Your task to perform on an android device: turn on the 12-hour format for clock Image 0: 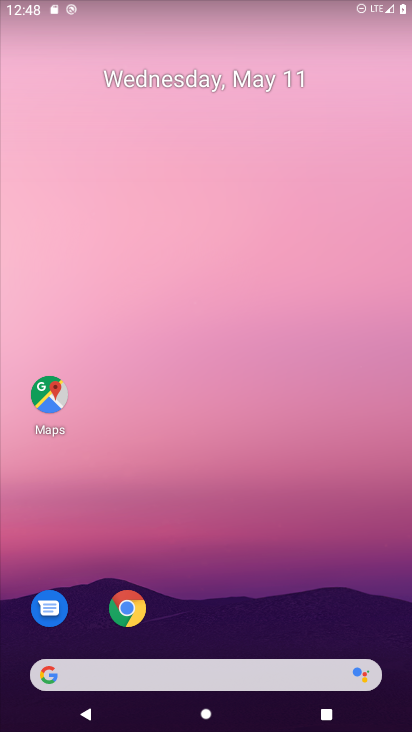
Step 0: drag from (229, 541) to (237, 78)
Your task to perform on an android device: turn on the 12-hour format for clock Image 1: 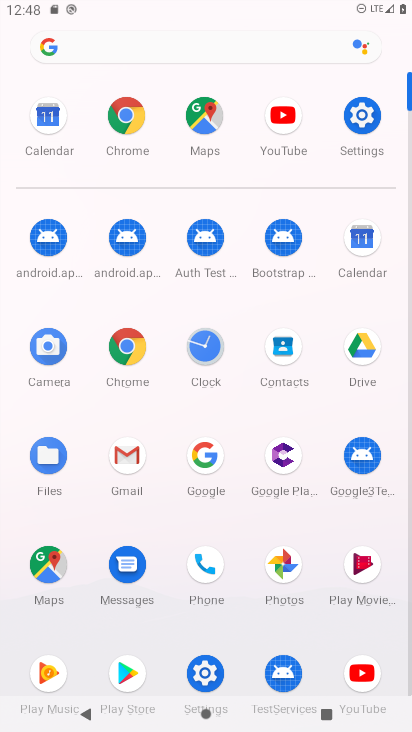
Step 1: click (208, 343)
Your task to perform on an android device: turn on the 12-hour format for clock Image 2: 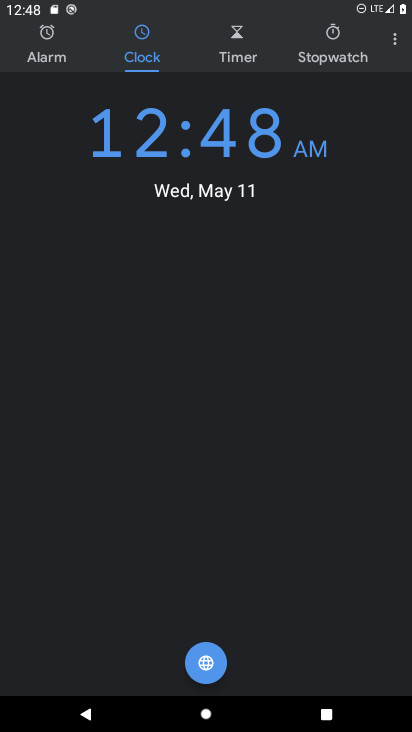
Step 2: click (395, 44)
Your task to perform on an android device: turn on the 12-hour format for clock Image 3: 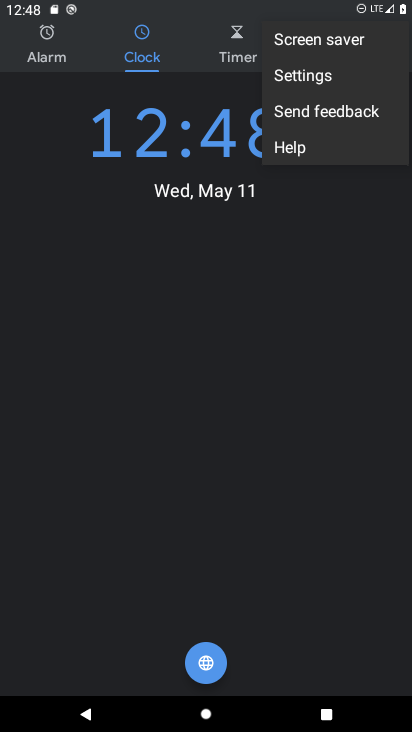
Step 3: click (332, 83)
Your task to perform on an android device: turn on the 12-hour format for clock Image 4: 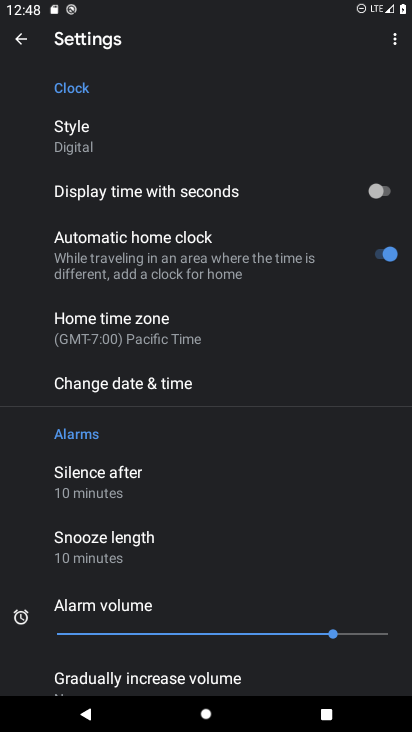
Step 4: click (184, 376)
Your task to perform on an android device: turn on the 12-hour format for clock Image 5: 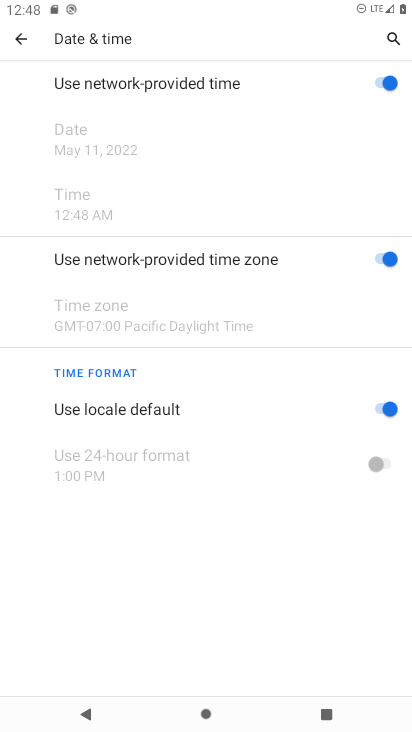
Step 5: task complete